Your task to perform on an android device: turn on airplane mode Image 0: 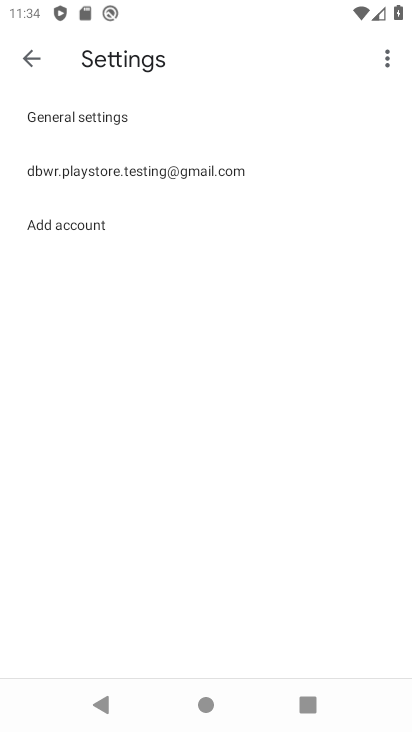
Step 0: press home button
Your task to perform on an android device: turn on airplane mode Image 1: 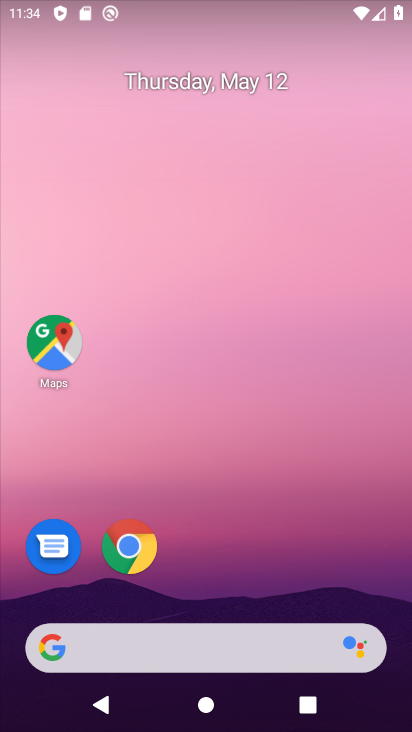
Step 1: drag from (229, 726) to (212, 124)
Your task to perform on an android device: turn on airplane mode Image 2: 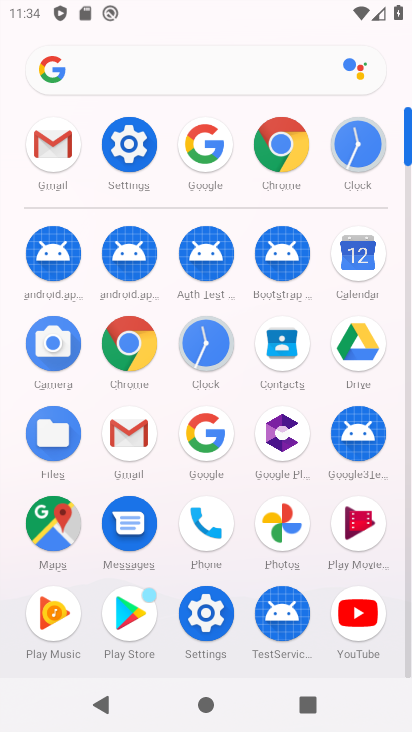
Step 2: click (130, 148)
Your task to perform on an android device: turn on airplane mode Image 3: 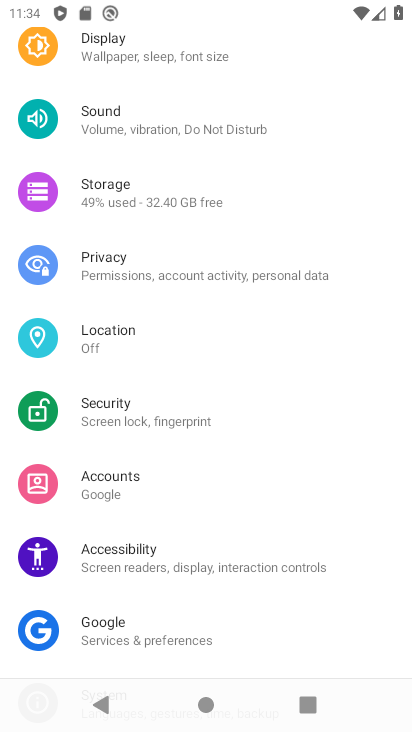
Step 3: drag from (213, 104) to (266, 522)
Your task to perform on an android device: turn on airplane mode Image 4: 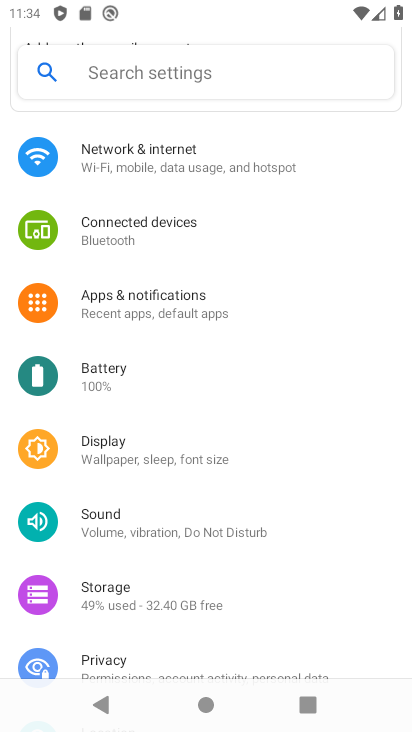
Step 4: click (170, 158)
Your task to perform on an android device: turn on airplane mode Image 5: 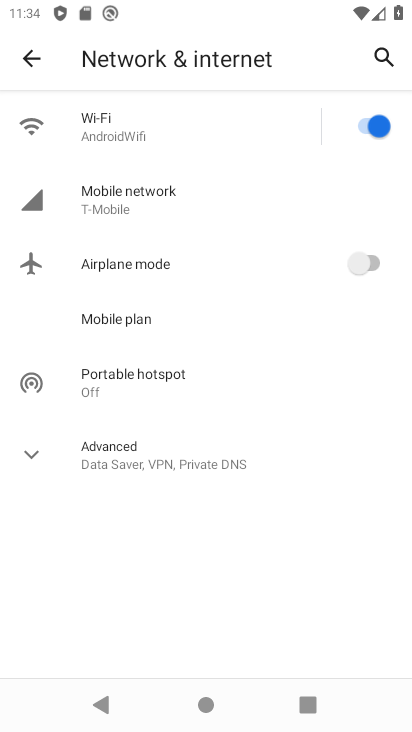
Step 5: click (367, 264)
Your task to perform on an android device: turn on airplane mode Image 6: 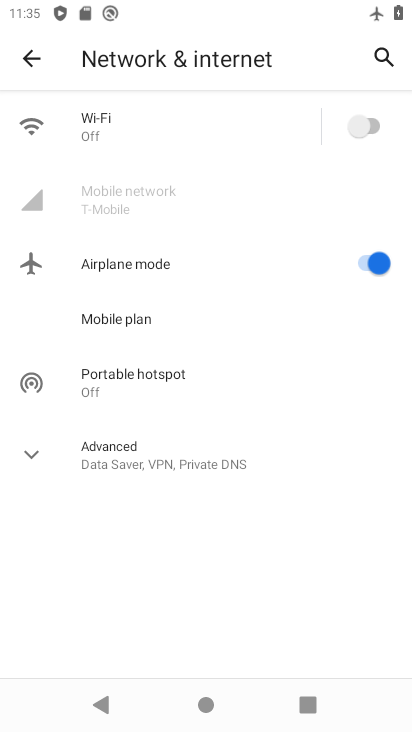
Step 6: task complete